Your task to perform on an android device: Go to display settings Image 0: 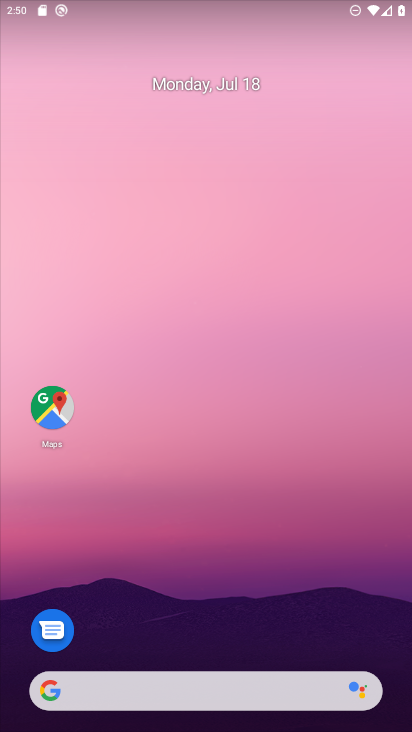
Step 0: drag from (354, 573) to (394, 170)
Your task to perform on an android device: Go to display settings Image 1: 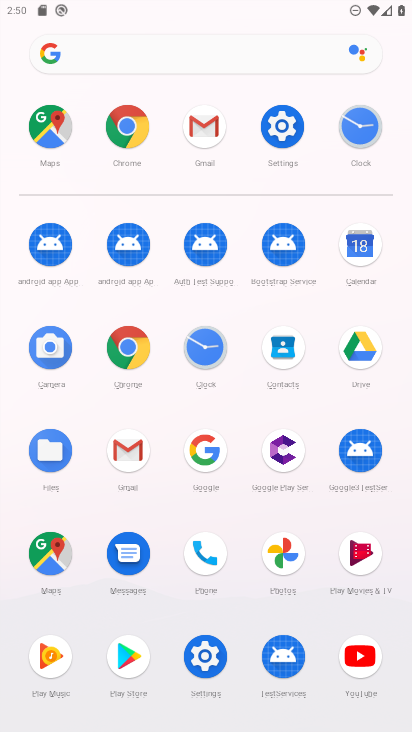
Step 1: click (272, 123)
Your task to perform on an android device: Go to display settings Image 2: 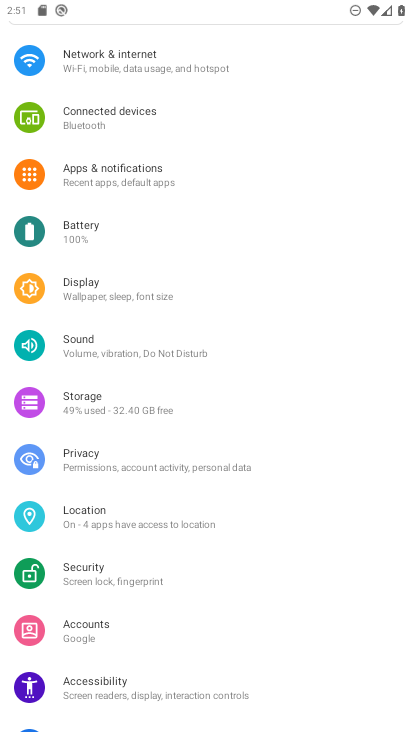
Step 2: click (96, 284)
Your task to perform on an android device: Go to display settings Image 3: 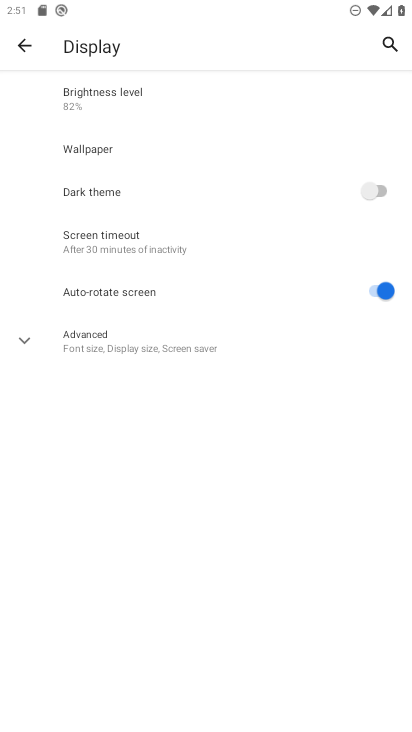
Step 3: task complete